Your task to perform on an android device: What is the news today? Image 0: 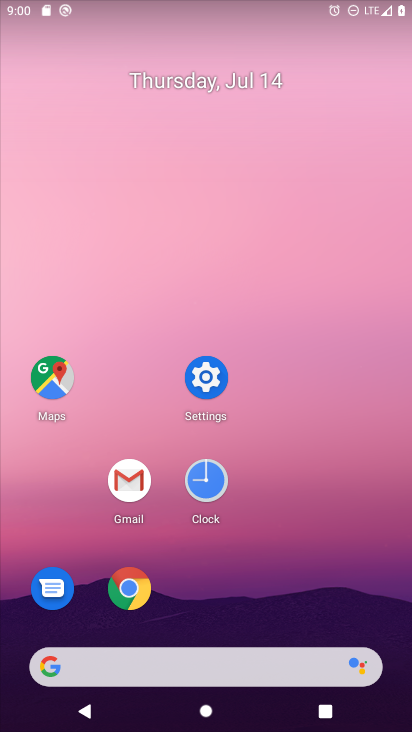
Step 0: drag from (1, 196) to (393, 175)
Your task to perform on an android device: What is the news today? Image 1: 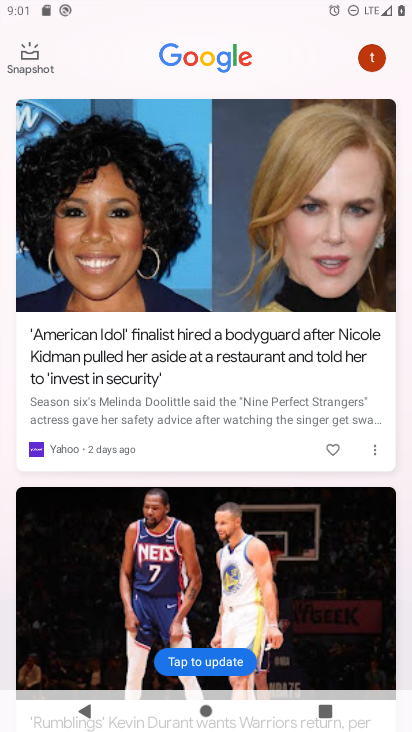
Step 1: task complete